Your task to perform on an android device: turn off picture-in-picture Image 0: 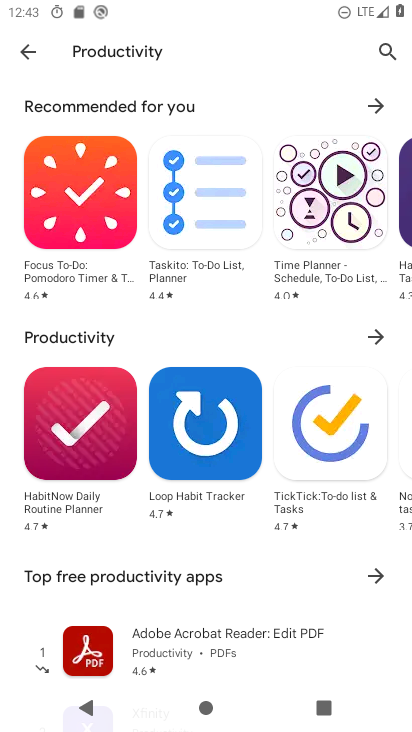
Step 0: press home button
Your task to perform on an android device: turn off picture-in-picture Image 1: 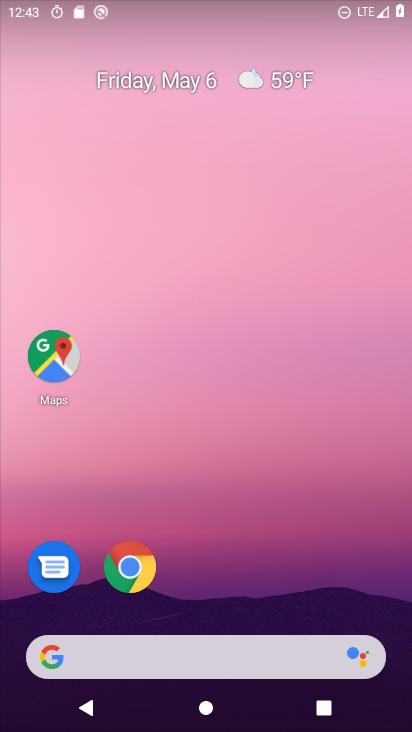
Step 1: click (144, 564)
Your task to perform on an android device: turn off picture-in-picture Image 2: 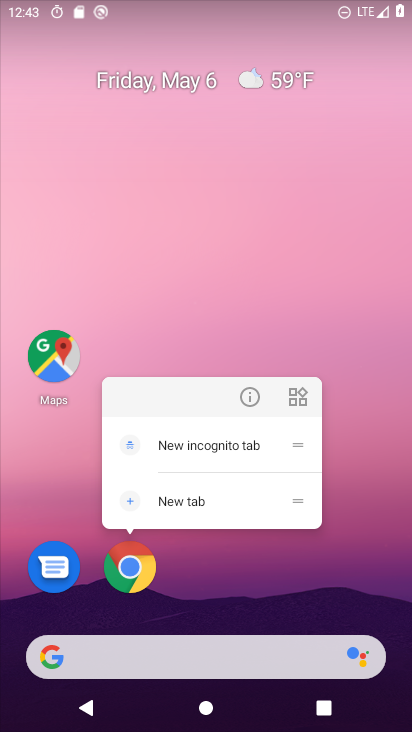
Step 2: click (247, 394)
Your task to perform on an android device: turn off picture-in-picture Image 3: 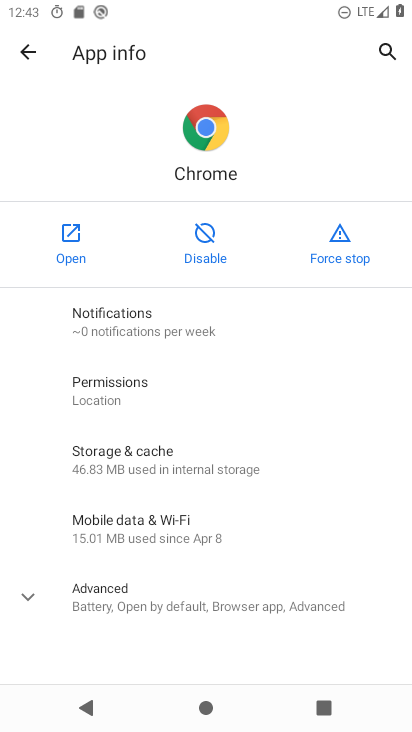
Step 3: click (28, 599)
Your task to perform on an android device: turn off picture-in-picture Image 4: 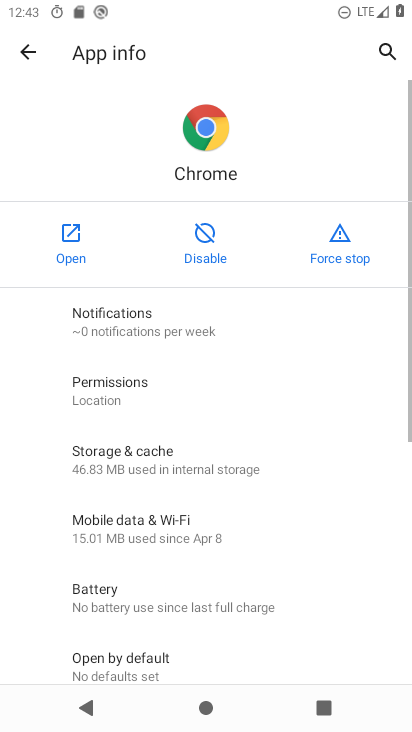
Step 4: drag from (168, 600) to (170, 227)
Your task to perform on an android device: turn off picture-in-picture Image 5: 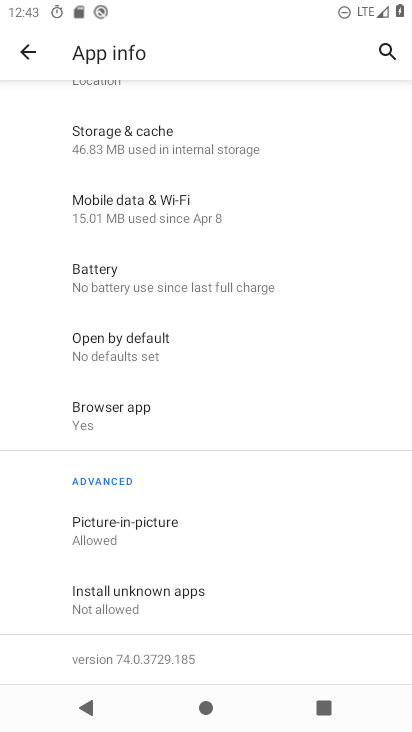
Step 5: click (115, 520)
Your task to perform on an android device: turn off picture-in-picture Image 6: 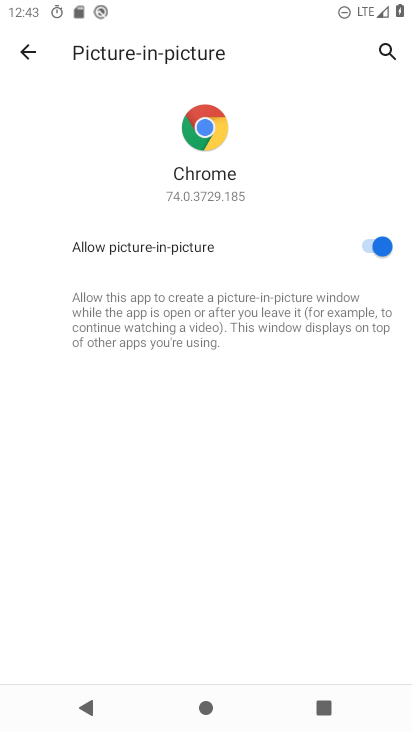
Step 6: click (374, 251)
Your task to perform on an android device: turn off picture-in-picture Image 7: 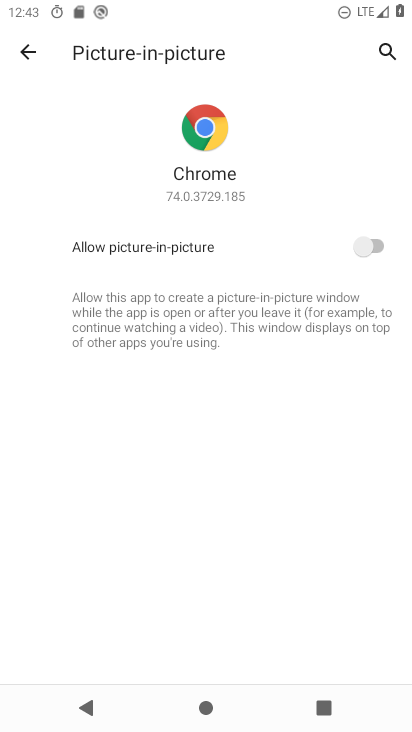
Step 7: task complete